Your task to perform on an android device: Open Reddit.com Image 0: 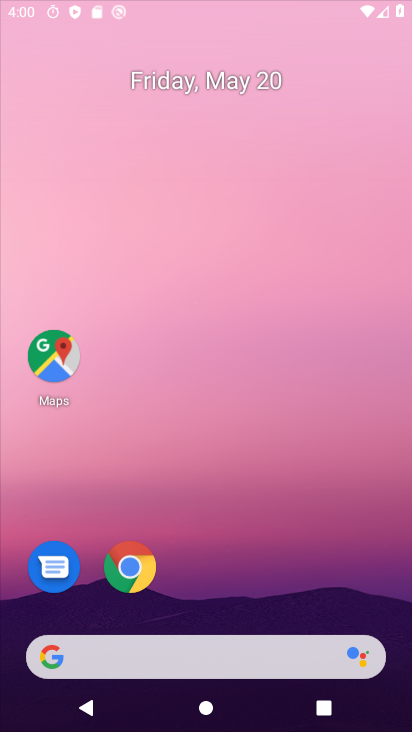
Step 0: press home button
Your task to perform on an android device: Open Reddit.com Image 1: 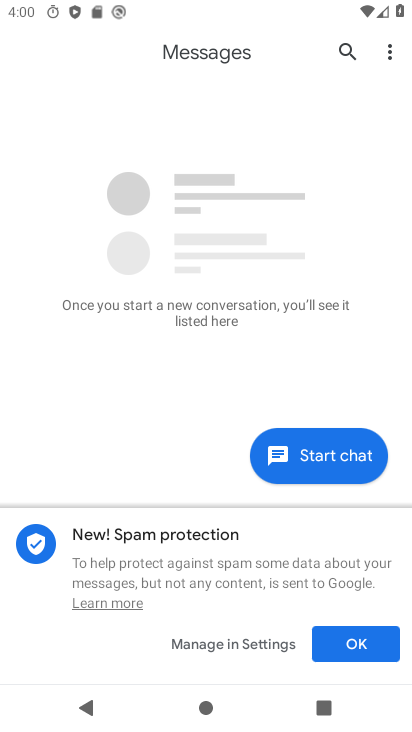
Step 1: drag from (340, 4) to (291, 0)
Your task to perform on an android device: Open Reddit.com Image 2: 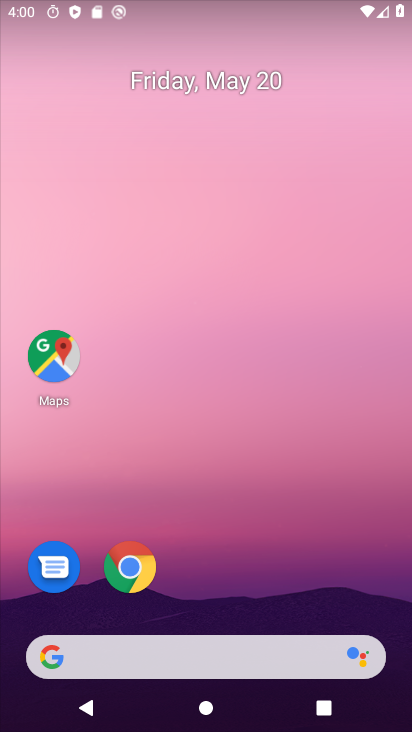
Step 2: click (128, 654)
Your task to perform on an android device: Open Reddit.com Image 3: 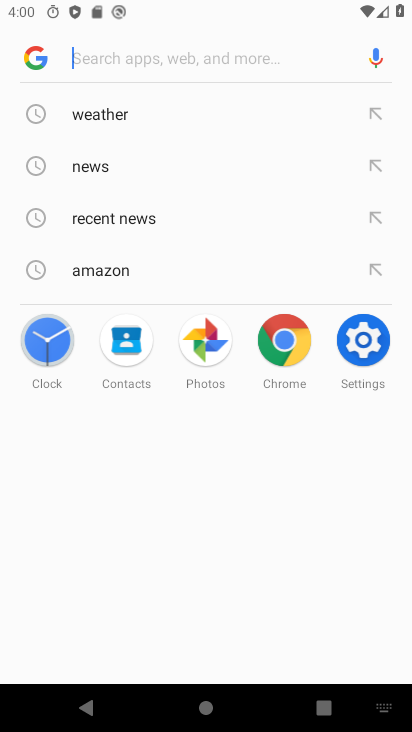
Step 3: type "reddit"
Your task to perform on an android device: Open Reddit.com Image 4: 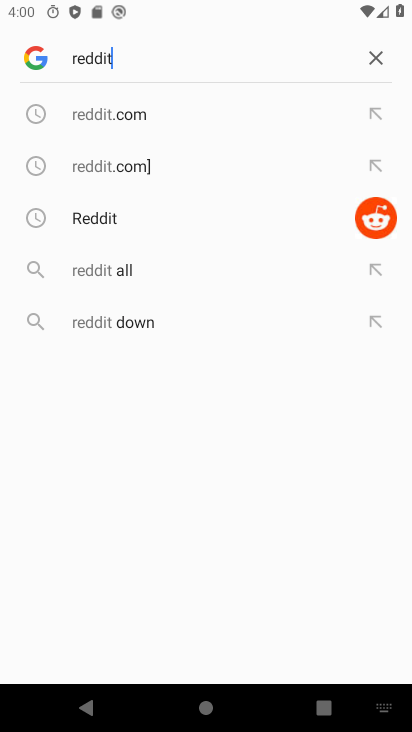
Step 4: type ""
Your task to perform on an android device: Open Reddit.com Image 5: 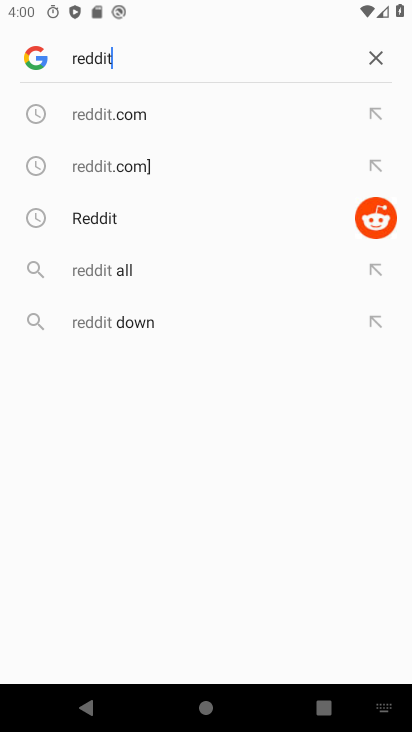
Step 5: click (152, 107)
Your task to perform on an android device: Open Reddit.com Image 6: 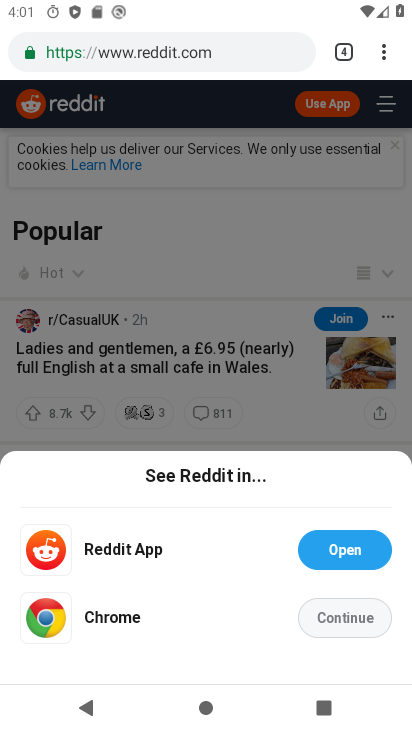
Step 6: task complete